Your task to perform on an android device: Open battery settings Image 0: 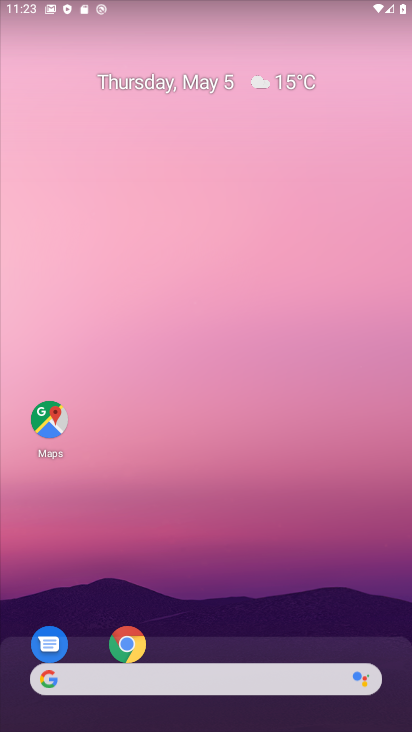
Step 0: drag from (190, 656) to (246, 32)
Your task to perform on an android device: Open battery settings Image 1: 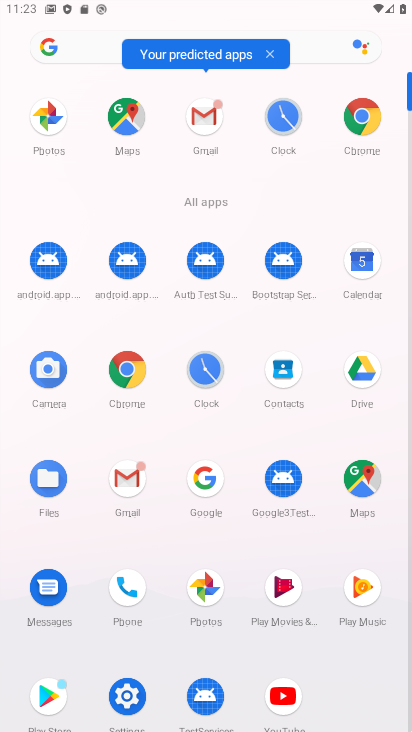
Step 1: click (124, 692)
Your task to perform on an android device: Open battery settings Image 2: 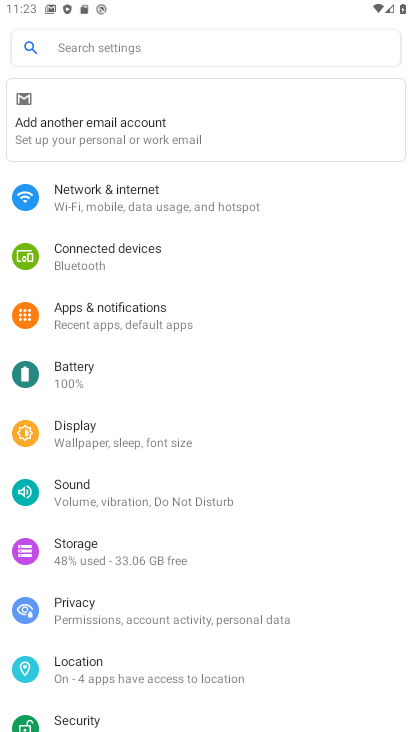
Step 2: click (120, 373)
Your task to perform on an android device: Open battery settings Image 3: 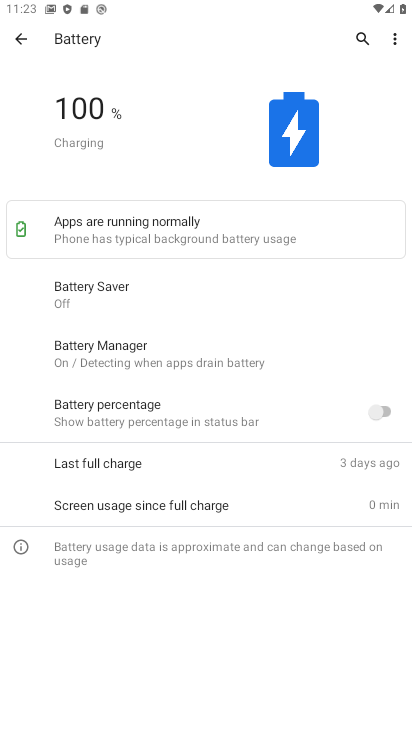
Step 3: task complete